Your task to perform on an android device: make emails show in primary in the gmail app Image 0: 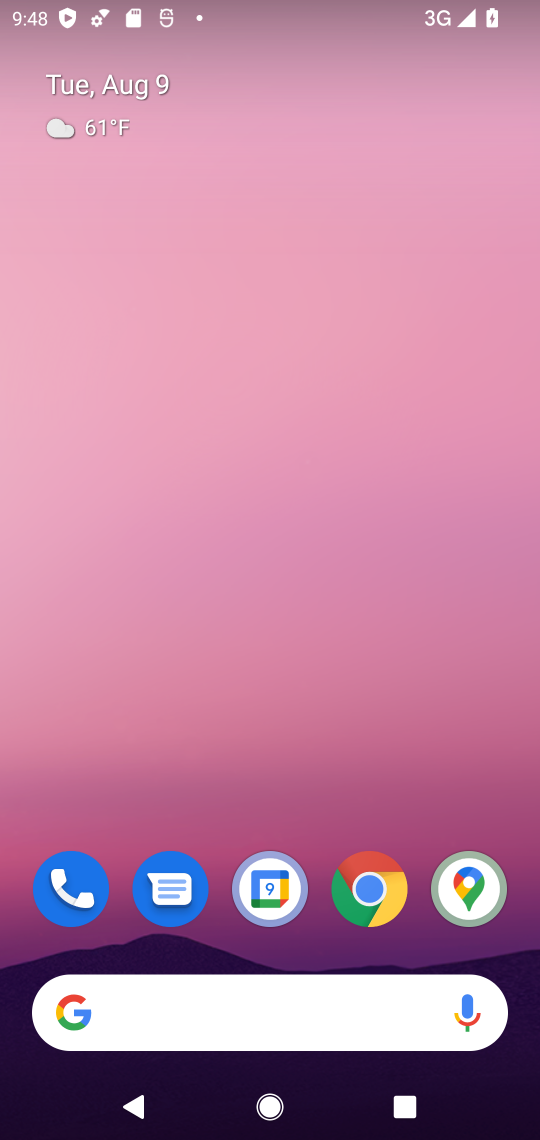
Step 0: drag from (295, 1025) to (398, 328)
Your task to perform on an android device: make emails show in primary in the gmail app Image 1: 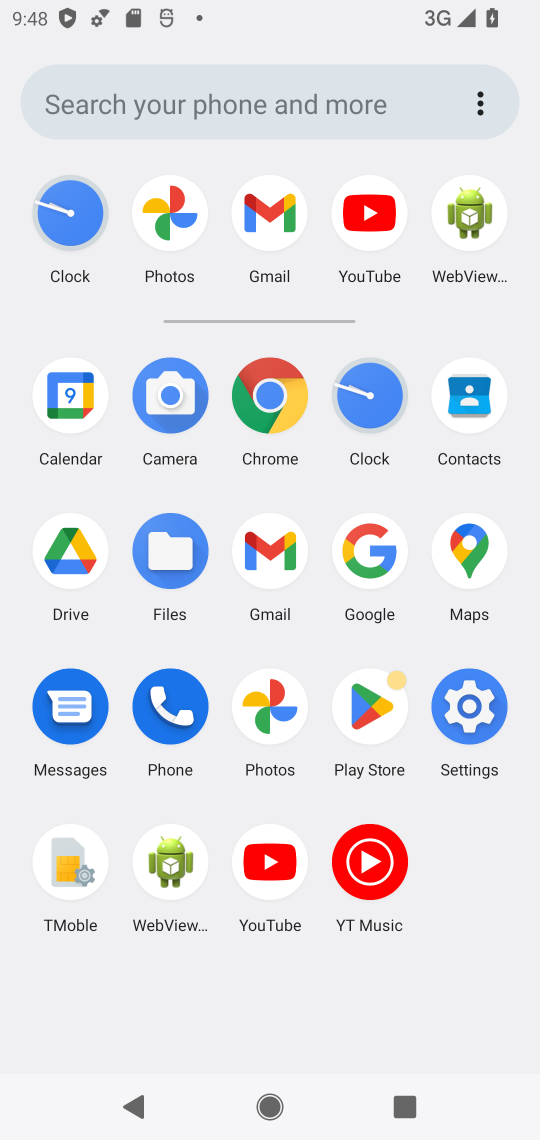
Step 1: click (260, 202)
Your task to perform on an android device: make emails show in primary in the gmail app Image 2: 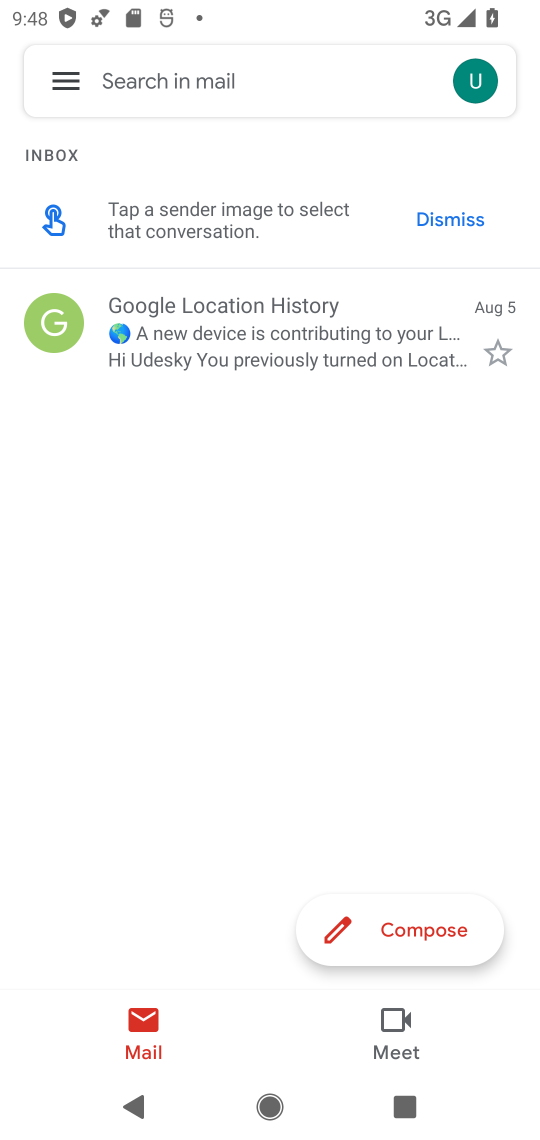
Step 2: click (77, 81)
Your task to perform on an android device: make emails show in primary in the gmail app Image 3: 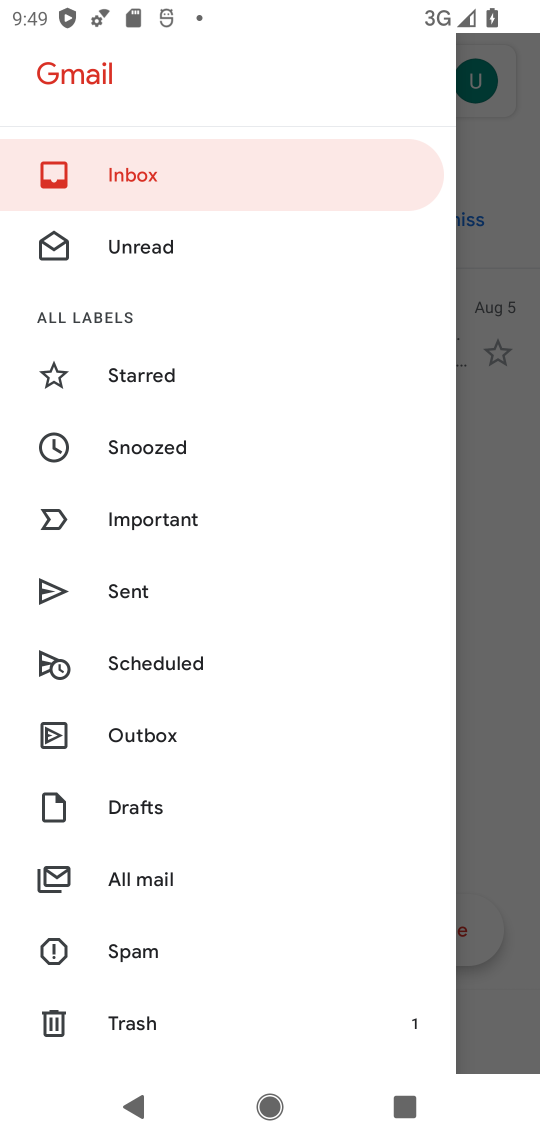
Step 3: drag from (213, 960) to (310, 195)
Your task to perform on an android device: make emails show in primary in the gmail app Image 4: 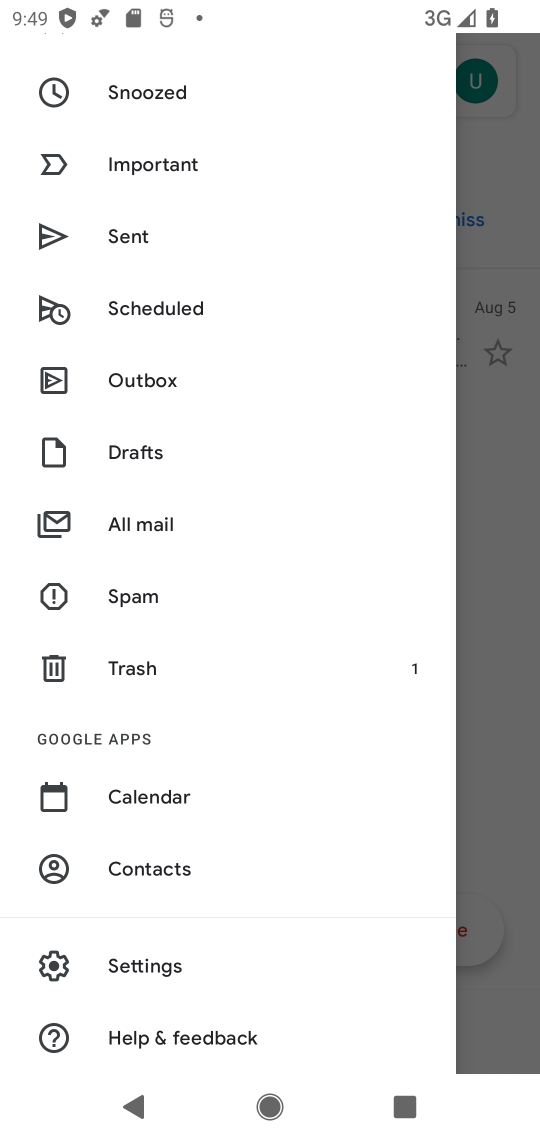
Step 4: drag from (176, 936) to (284, 276)
Your task to perform on an android device: make emails show in primary in the gmail app Image 5: 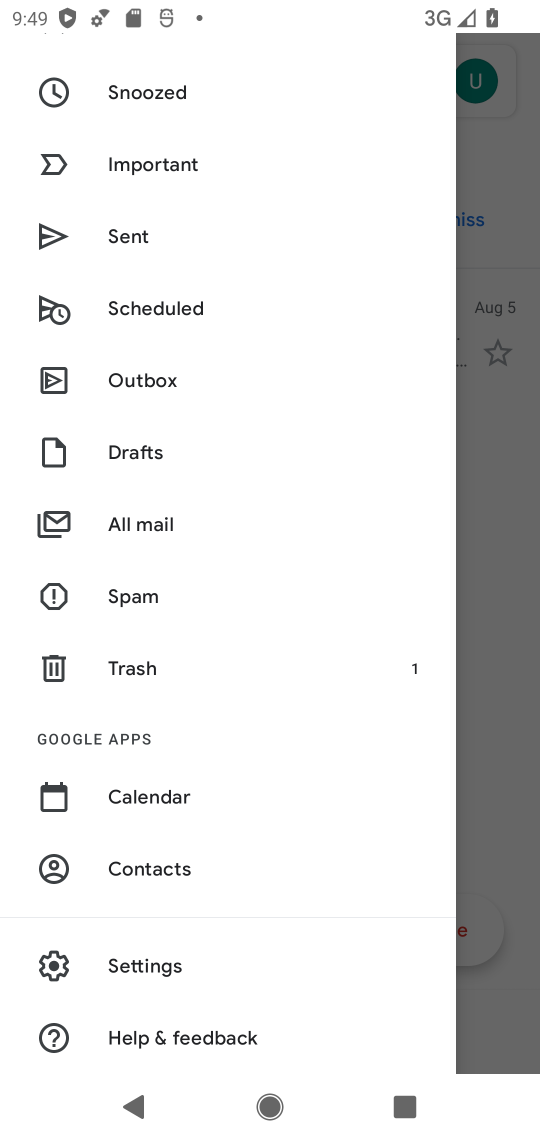
Step 5: click (114, 969)
Your task to perform on an android device: make emails show in primary in the gmail app Image 6: 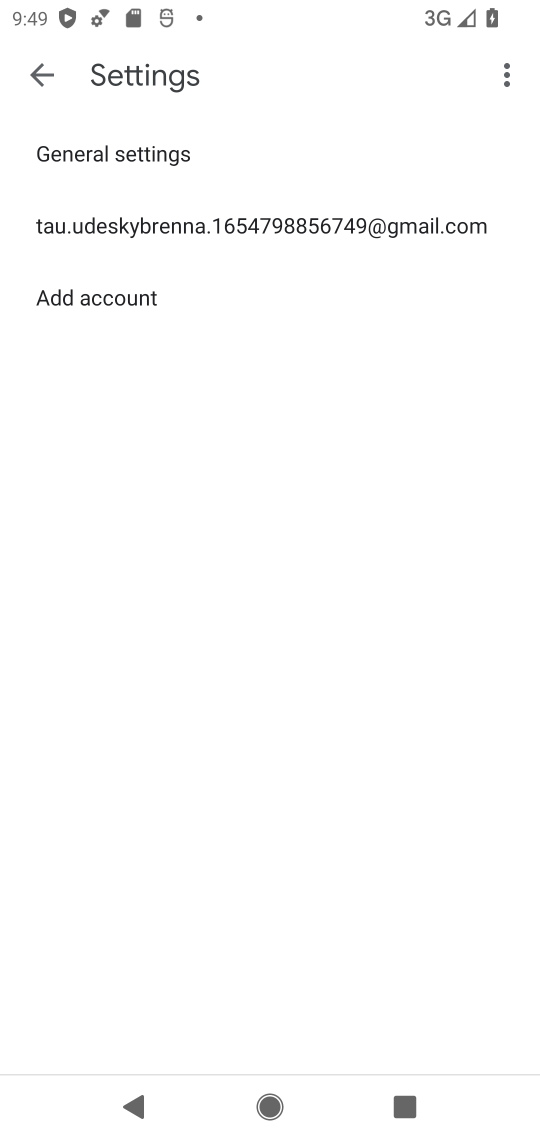
Step 6: click (187, 221)
Your task to perform on an android device: make emails show in primary in the gmail app Image 7: 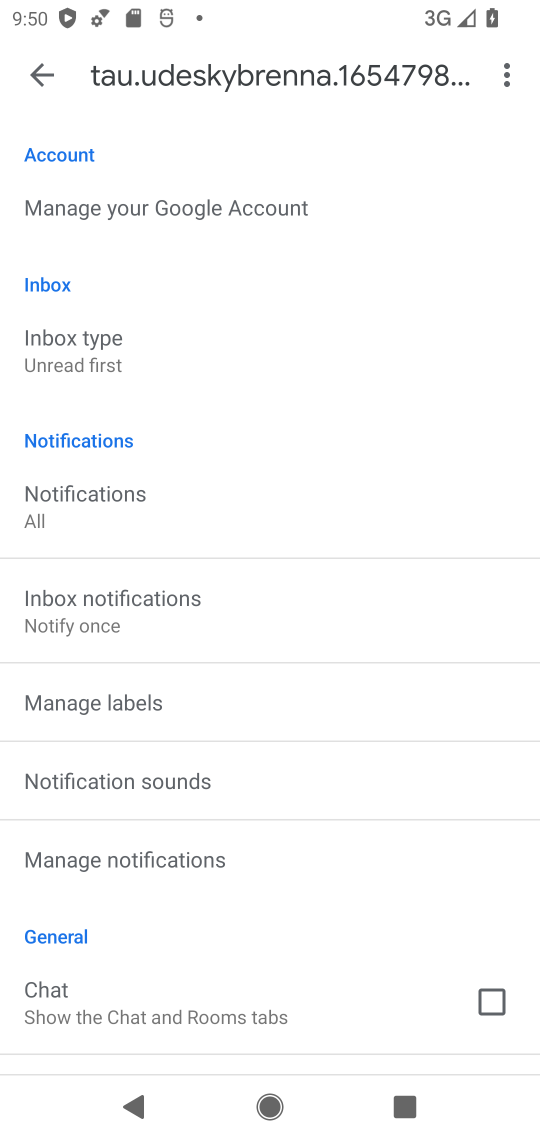
Step 7: click (97, 357)
Your task to perform on an android device: make emails show in primary in the gmail app Image 8: 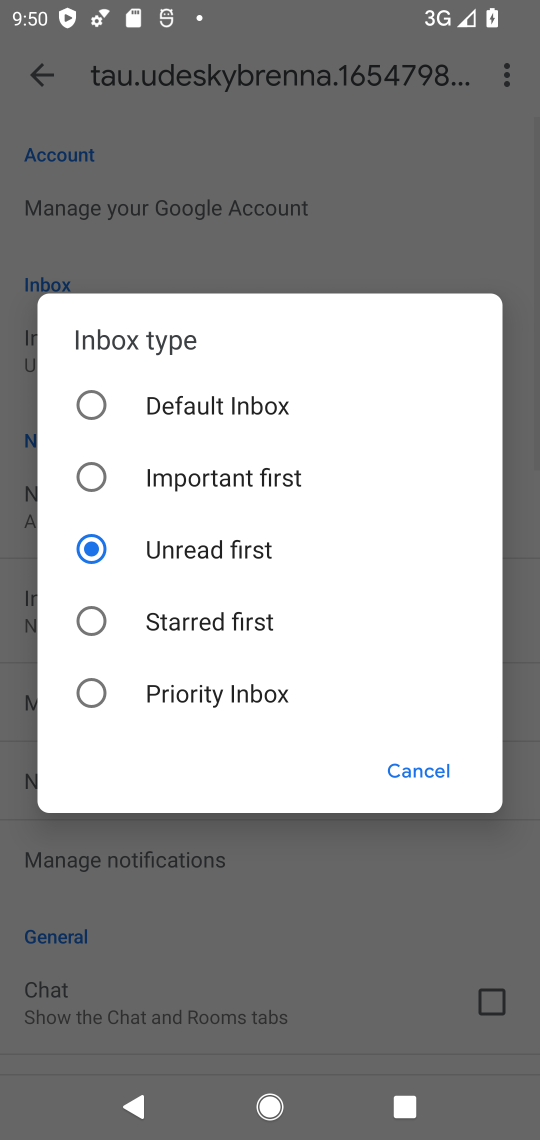
Step 8: click (151, 411)
Your task to perform on an android device: make emails show in primary in the gmail app Image 9: 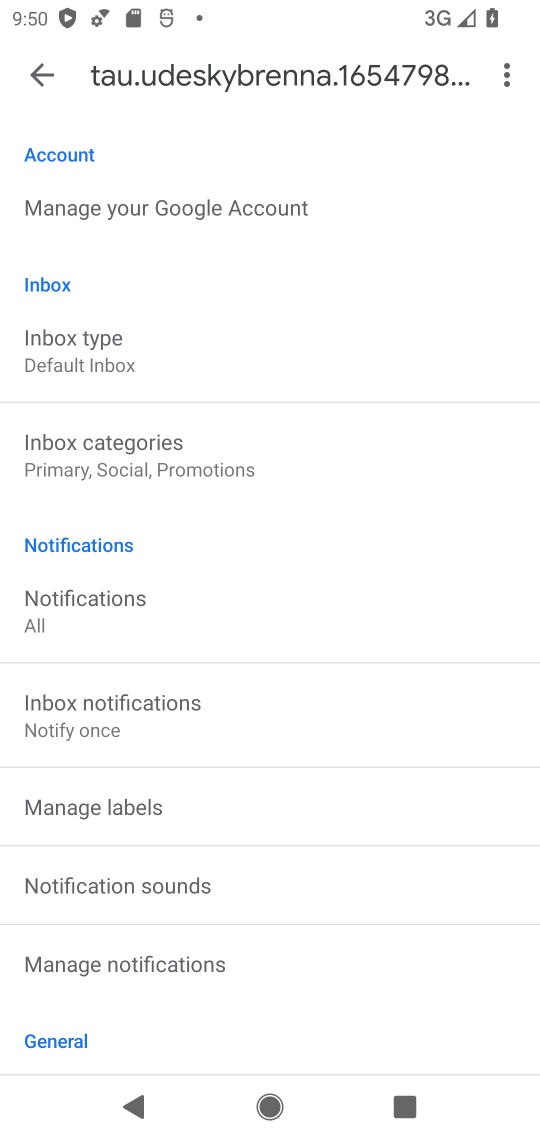
Step 9: task complete